Your task to perform on an android device: toggle location history Image 0: 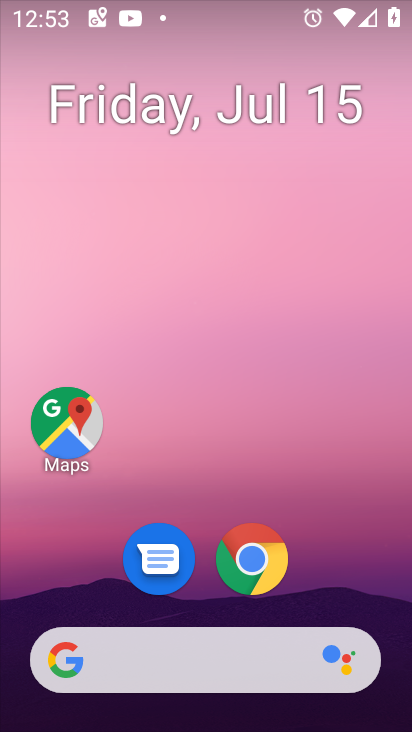
Step 0: drag from (369, 590) to (383, 121)
Your task to perform on an android device: toggle location history Image 1: 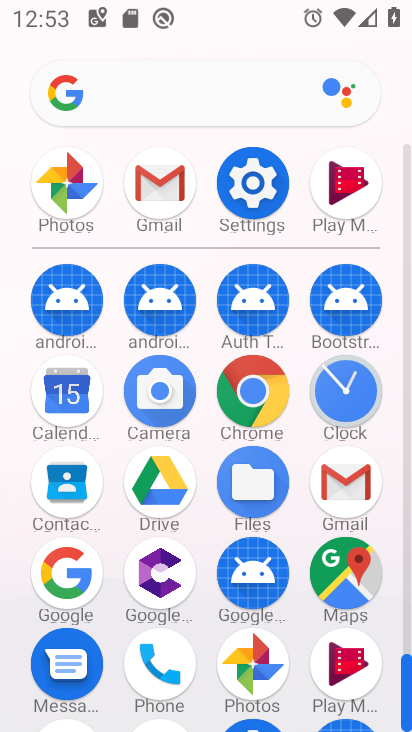
Step 1: click (260, 202)
Your task to perform on an android device: toggle location history Image 2: 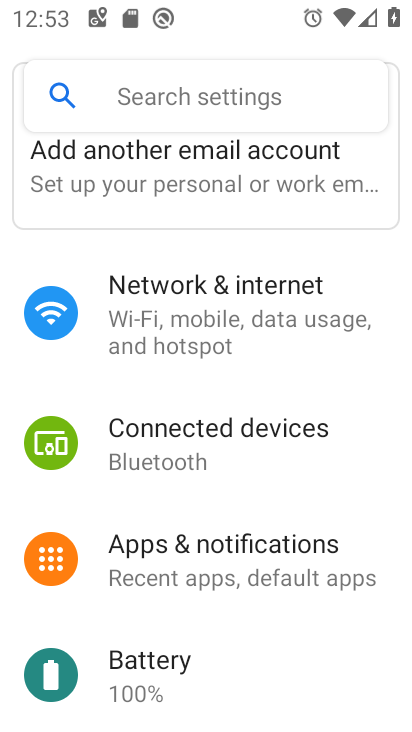
Step 2: drag from (360, 477) to (370, 393)
Your task to perform on an android device: toggle location history Image 3: 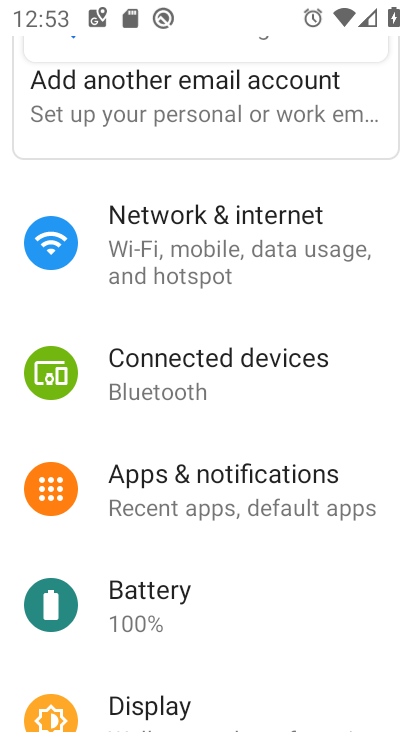
Step 3: drag from (354, 571) to (365, 453)
Your task to perform on an android device: toggle location history Image 4: 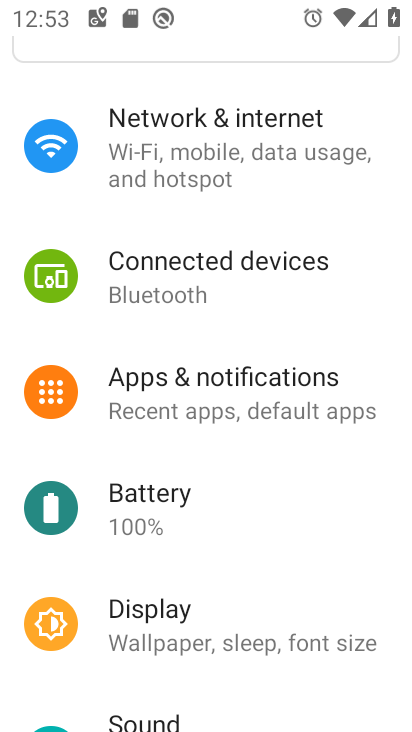
Step 4: drag from (353, 559) to (352, 389)
Your task to perform on an android device: toggle location history Image 5: 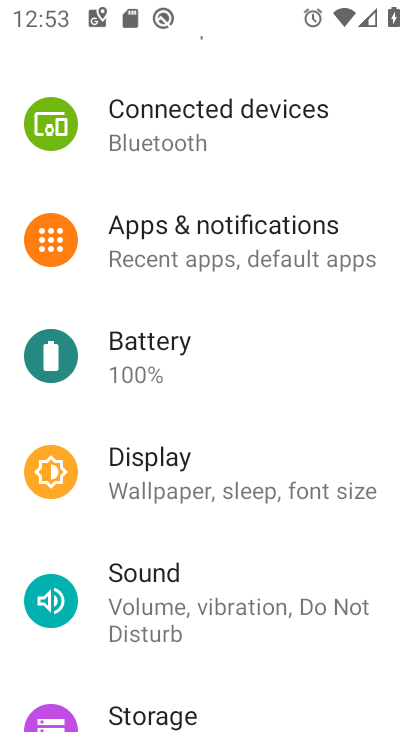
Step 5: drag from (341, 549) to (333, 322)
Your task to perform on an android device: toggle location history Image 6: 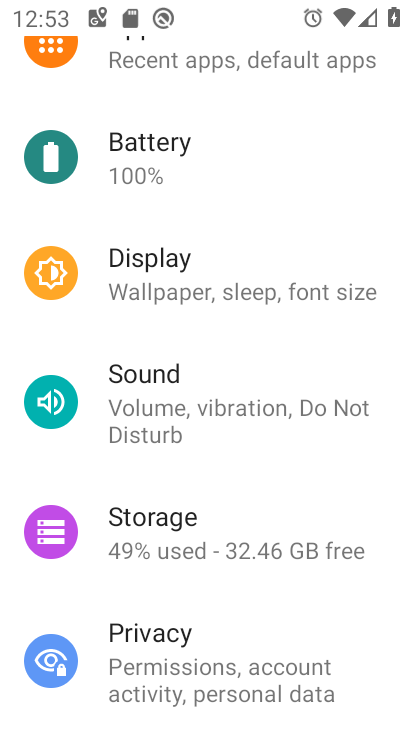
Step 6: drag from (320, 529) to (332, 338)
Your task to perform on an android device: toggle location history Image 7: 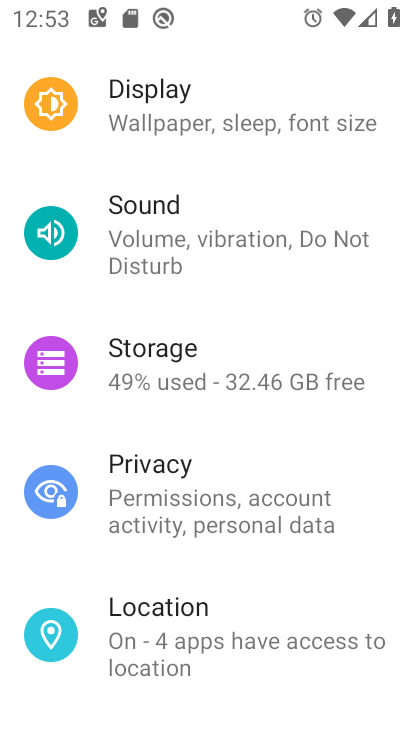
Step 7: drag from (344, 573) to (363, 423)
Your task to perform on an android device: toggle location history Image 8: 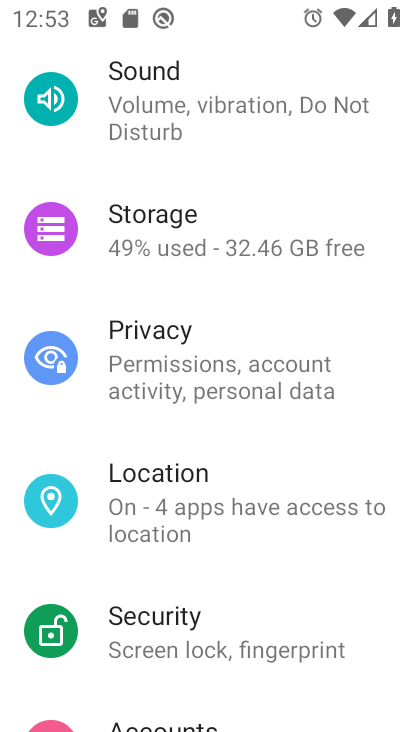
Step 8: click (307, 515)
Your task to perform on an android device: toggle location history Image 9: 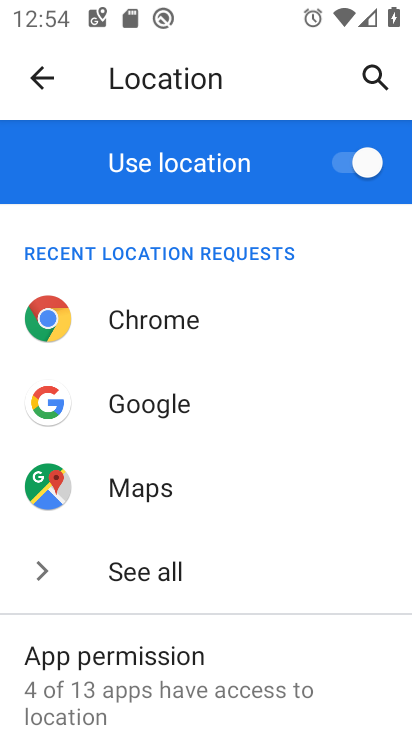
Step 9: drag from (285, 536) to (287, 379)
Your task to perform on an android device: toggle location history Image 10: 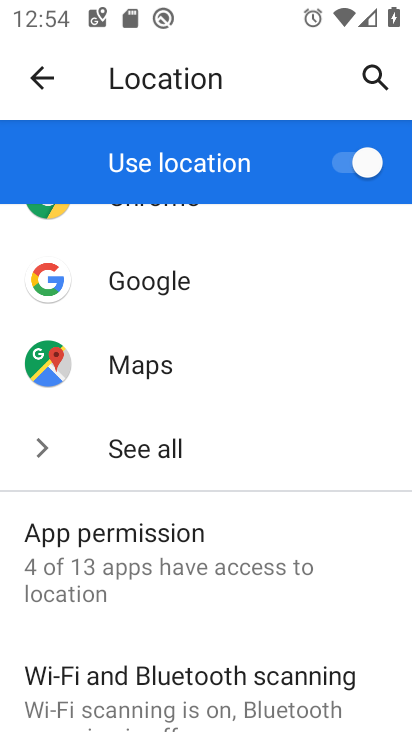
Step 10: drag from (359, 589) to (347, 422)
Your task to perform on an android device: toggle location history Image 11: 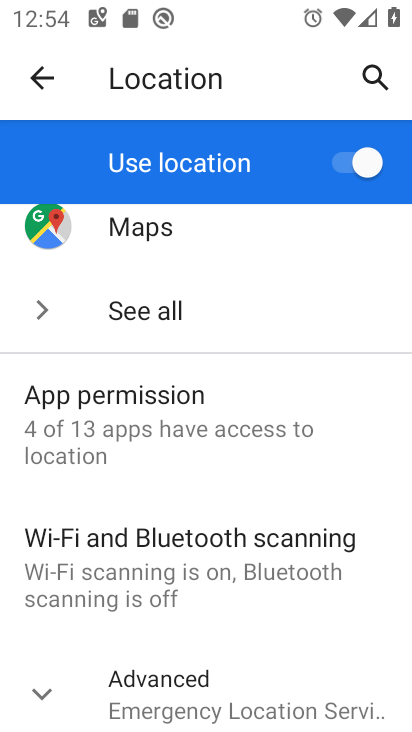
Step 11: click (265, 681)
Your task to perform on an android device: toggle location history Image 12: 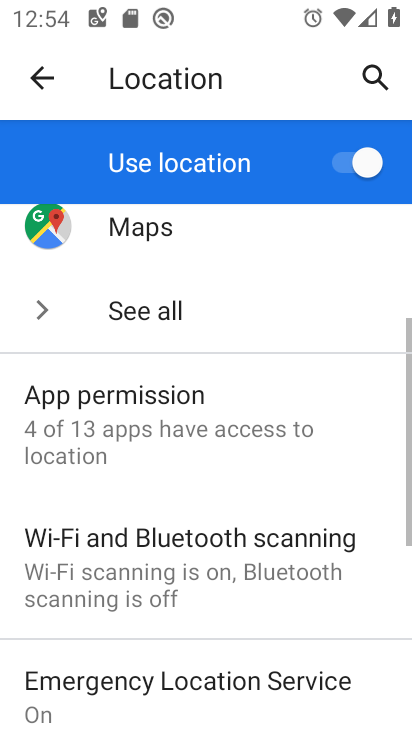
Step 12: drag from (362, 627) to (370, 398)
Your task to perform on an android device: toggle location history Image 13: 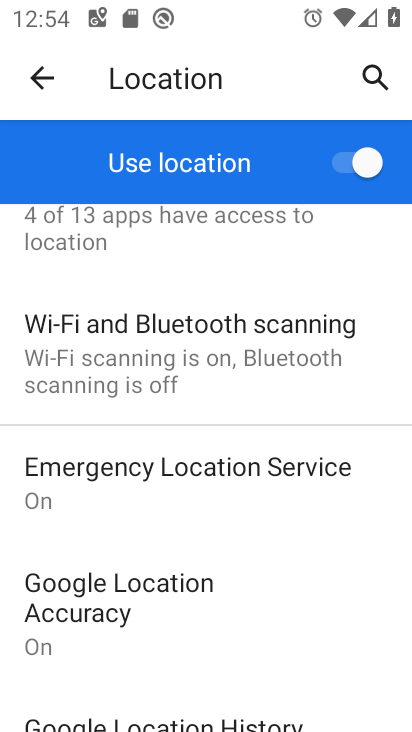
Step 13: drag from (267, 613) to (267, 475)
Your task to perform on an android device: toggle location history Image 14: 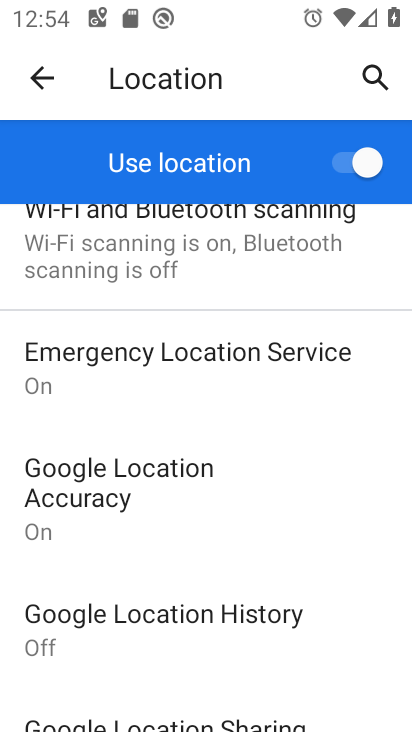
Step 14: click (202, 612)
Your task to perform on an android device: toggle location history Image 15: 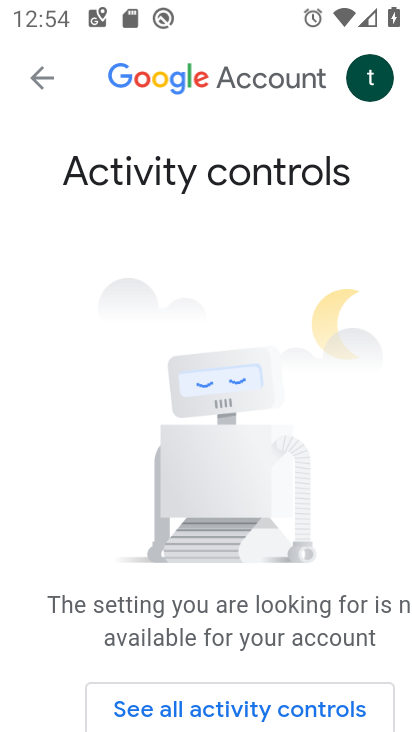
Step 15: click (330, 707)
Your task to perform on an android device: toggle location history Image 16: 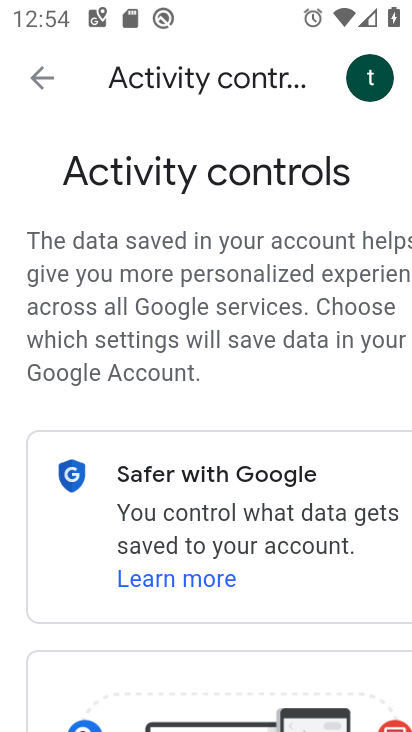
Step 16: drag from (285, 612) to (280, 457)
Your task to perform on an android device: toggle location history Image 17: 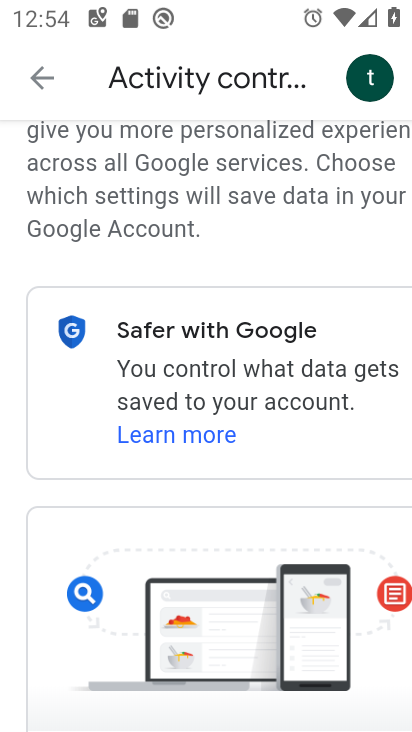
Step 17: drag from (248, 657) to (250, 504)
Your task to perform on an android device: toggle location history Image 18: 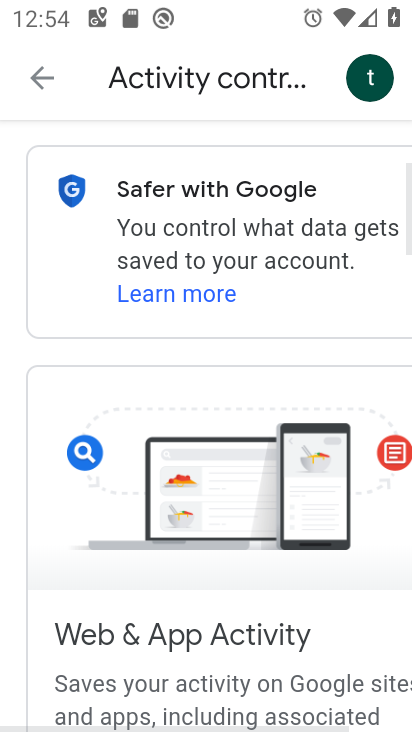
Step 18: drag from (247, 654) to (258, 458)
Your task to perform on an android device: toggle location history Image 19: 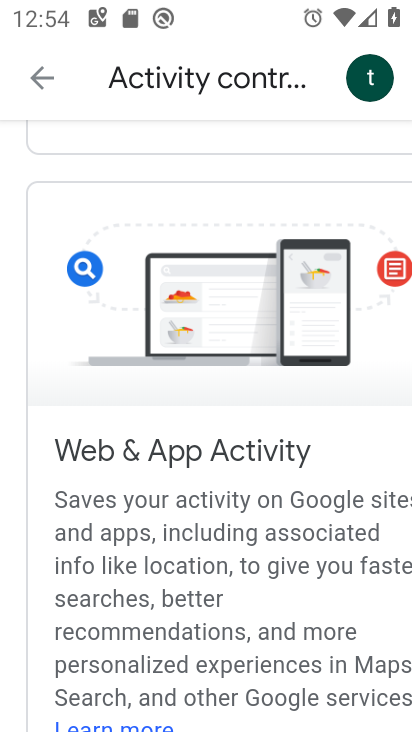
Step 19: drag from (240, 601) to (247, 415)
Your task to perform on an android device: toggle location history Image 20: 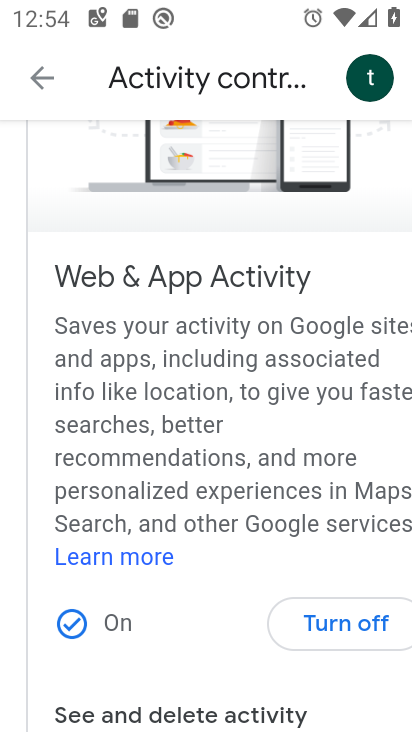
Step 20: click (371, 613)
Your task to perform on an android device: toggle location history Image 21: 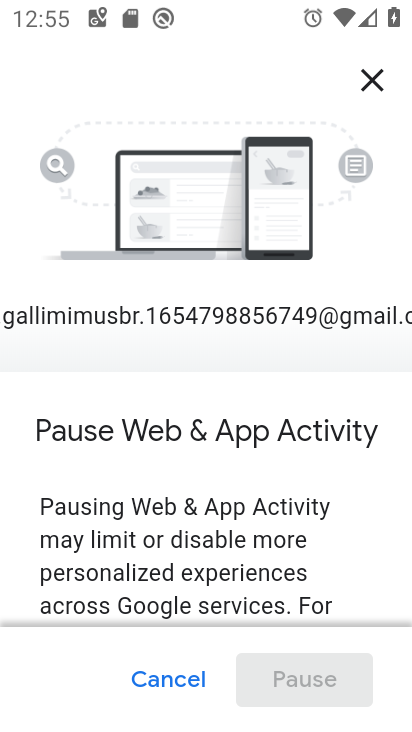
Step 21: drag from (348, 568) to (353, 389)
Your task to perform on an android device: toggle location history Image 22: 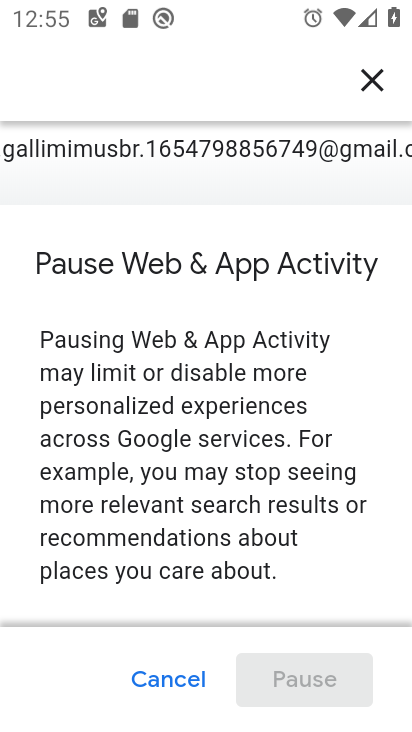
Step 22: drag from (336, 567) to (339, 456)
Your task to perform on an android device: toggle location history Image 23: 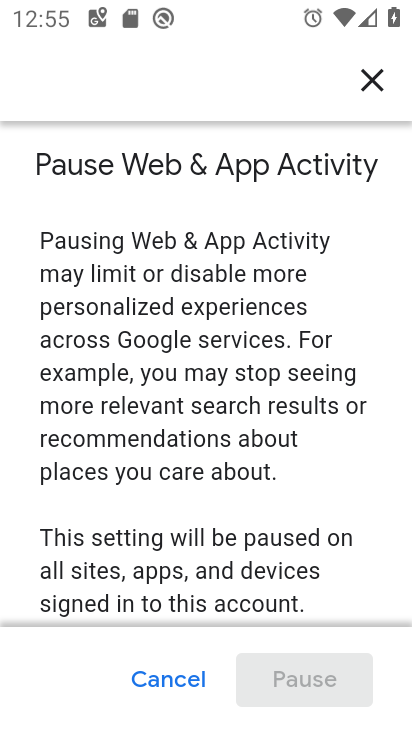
Step 23: drag from (340, 598) to (329, 391)
Your task to perform on an android device: toggle location history Image 24: 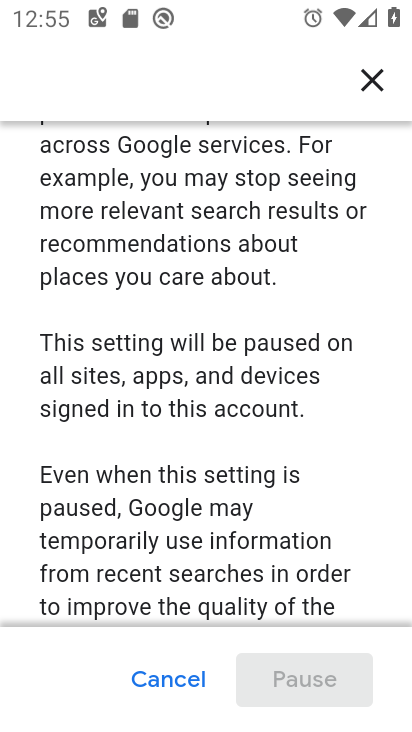
Step 24: drag from (333, 574) to (336, 397)
Your task to perform on an android device: toggle location history Image 25: 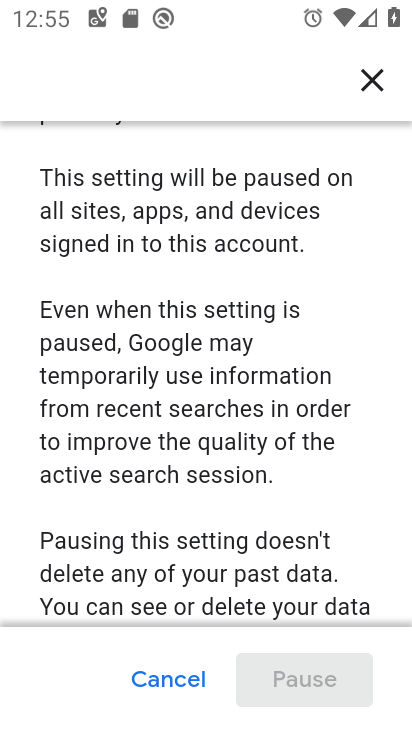
Step 25: drag from (355, 584) to (345, 410)
Your task to perform on an android device: toggle location history Image 26: 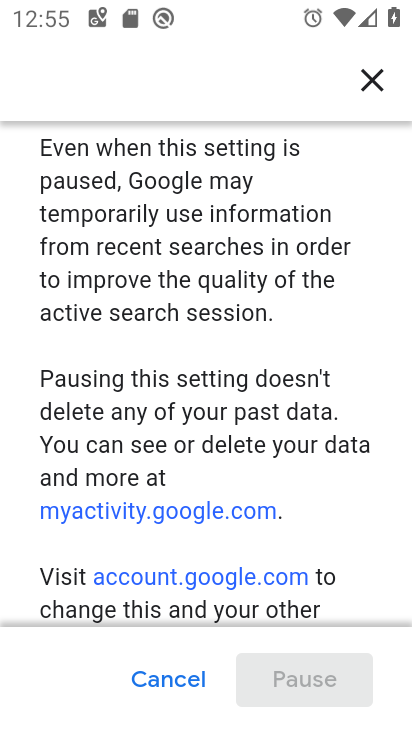
Step 26: drag from (337, 557) to (335, 352)
Your task to perform on an android device: toggle location history Image 27: 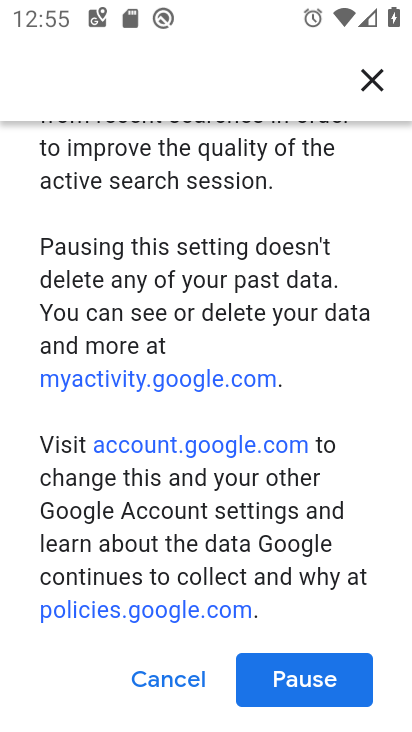
Step 27: click (314, 684)
Your task to perform on an android device: toggle location history Image 28: 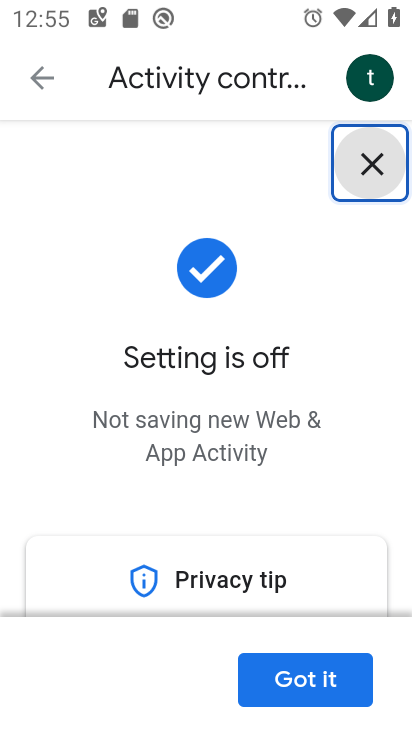
Step 28: task complete